Your task to perform on an android device: Open Youtube and go to the subscriptions tab Image 0: 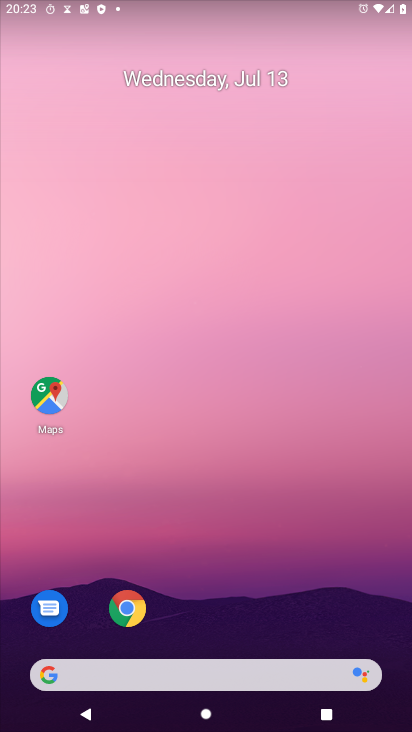
Step 0: drag from (214, 635) to (252, 9)
Your task to perform on an android device: Open Youtube and go to the subscriptions tab Image 1: 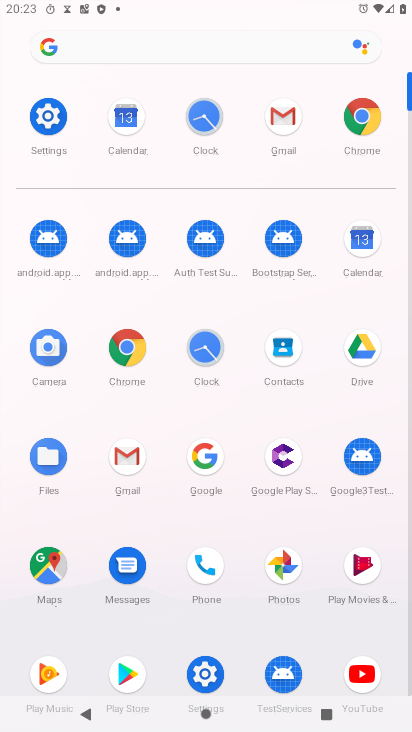
Step 1: click (364, 674)
Your task to perform on an android device: Open Youtube and go to the subscriptions tab Image 2: 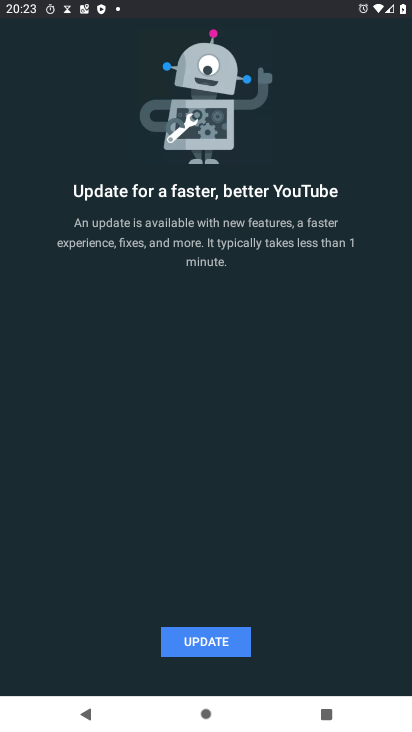
Step 2: click (236, 635)
Your task to perform on an android device: Open Youtube and go to the subscriptions tab Image 3: 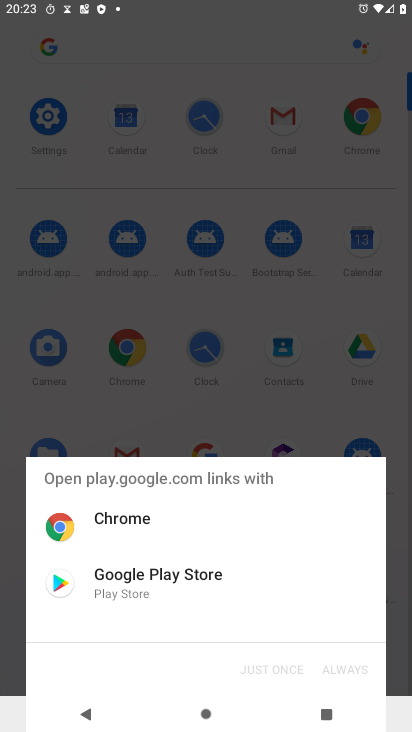
Step 3: click (164, 590)
Your task to perform on an android device: Open Youtube and go to the subscriptions tab Image 4: 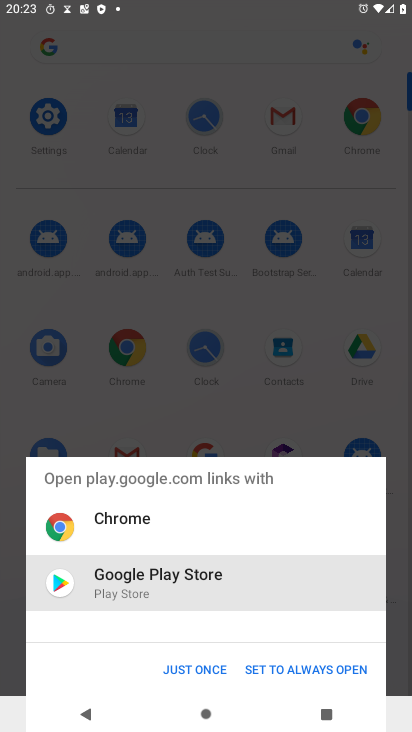
Step 4: click (207, 672)
Your task to perform on an android device: Open Youtube and go to the subscriptions tab Image 5: 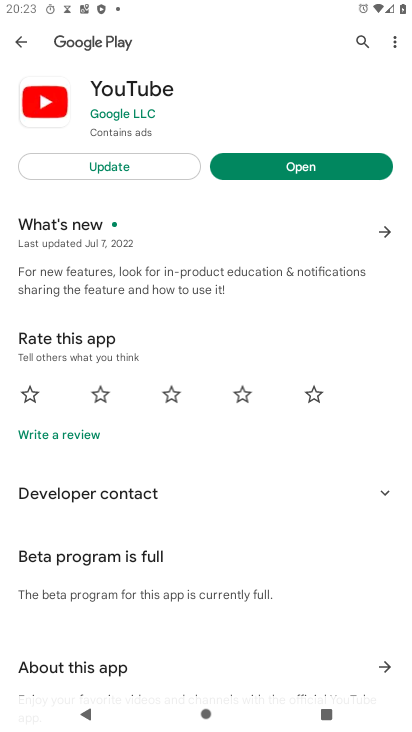
Step 5: click (107, 168)
Your task to perform on an android device: Open Youtube and go to the subscriptions tab Image 6: 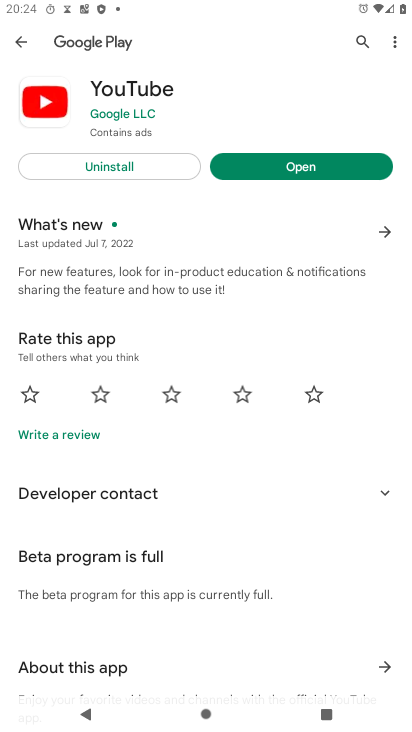
Step 6: click (282, 166)
Your task to perform on an android device: Open Youtube and go to the subscriptions tab Image 7: 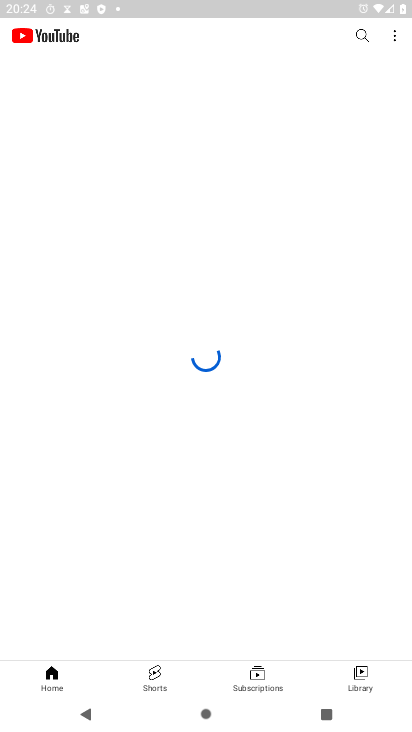
Step 7: click (257, 677)
Your task to perform on an android device: Open Youtube and go to the subscriptions tab Image 8: 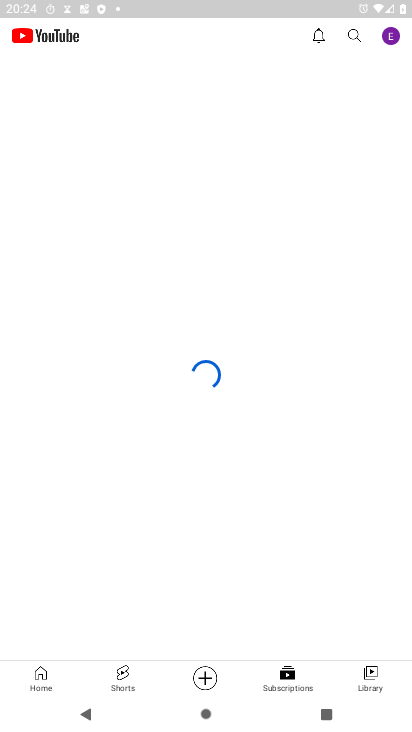
Step 8: task complete